Your task to perform on an android device: Do I have any events this weekend? Image 0: 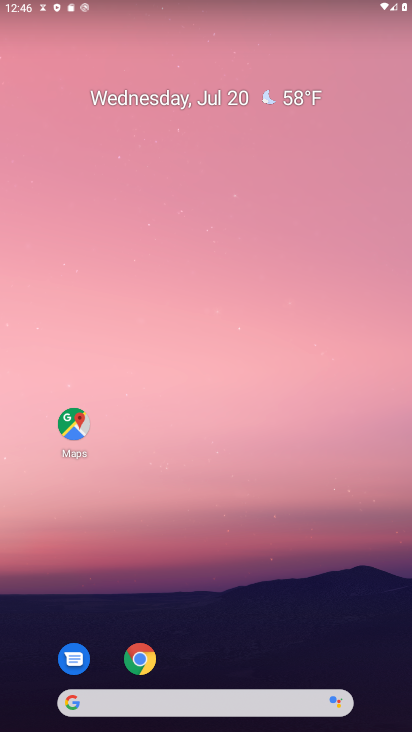
Step 0: press home button
Your task to perform on an android device: Do I have any events this weekend? Image 1: 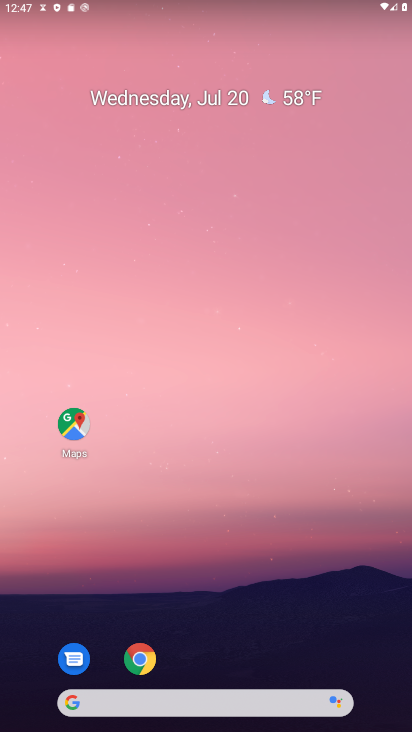
Step 1: drag from (214, 666) to (260, 78)
Your task to perform on an android device: Do I have any events this weekend? Image 2: 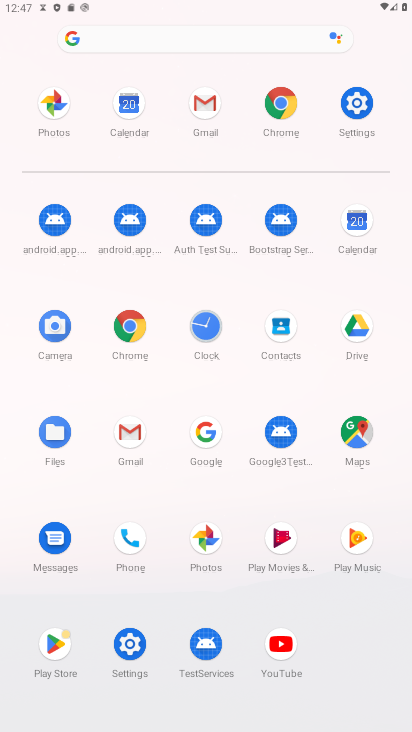
Step 2: click (357, 224)
Your task to perform on an android device: Do I have any events this weekend? Image 3: 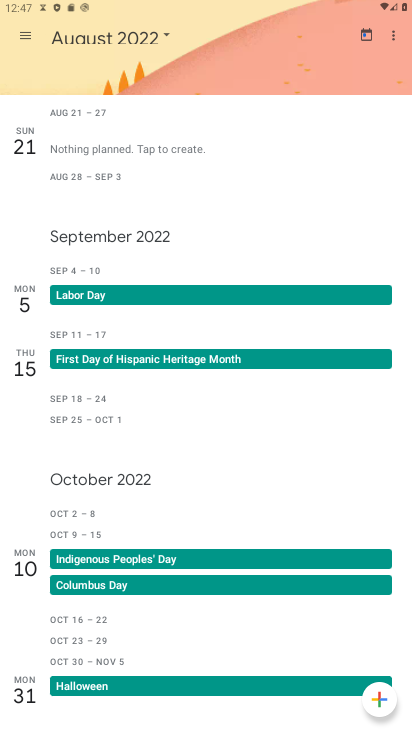
Step 3: click (23, 34)
Your task to perform on an android device: Do I have any events this weekend? Image 4: 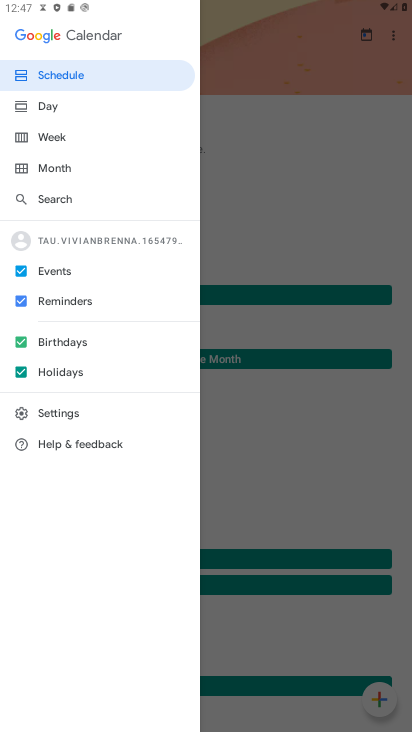
Step 4: click (58, 136)
Your task to perform on an android device: Do I have any events this weekend? Image 5: 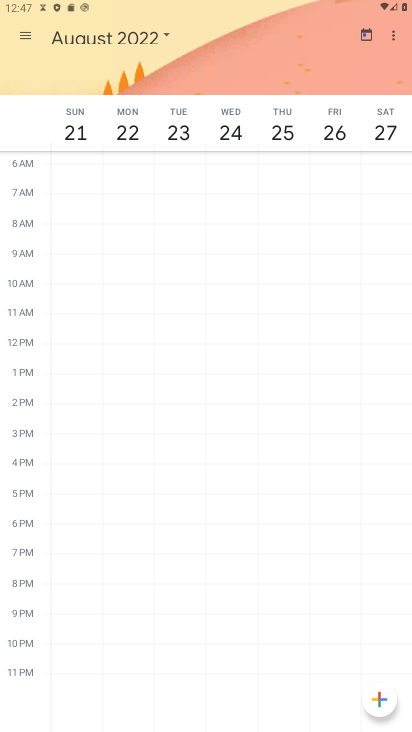
Step 5: drag from (76, 132) to (392, 122)
Your task to perform on an android device: Do I have any events this weekend? Image 6: 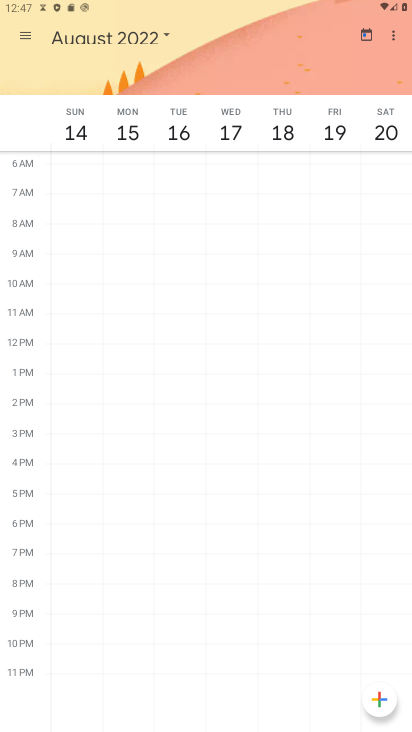
Step 6: click (165, 34)
Your task to perform on an android device: Do I have any events this weekend? Image 7: 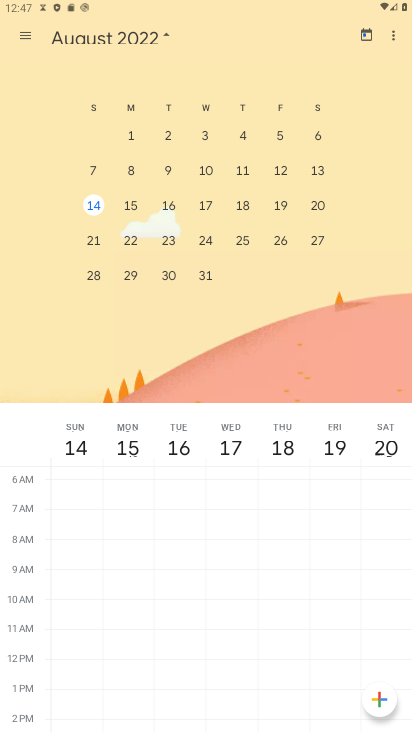
Step 7: drag from (131, 181) to (379, 172)
Your task to perform on an android device: Do I have any events this weekend? Image 8: 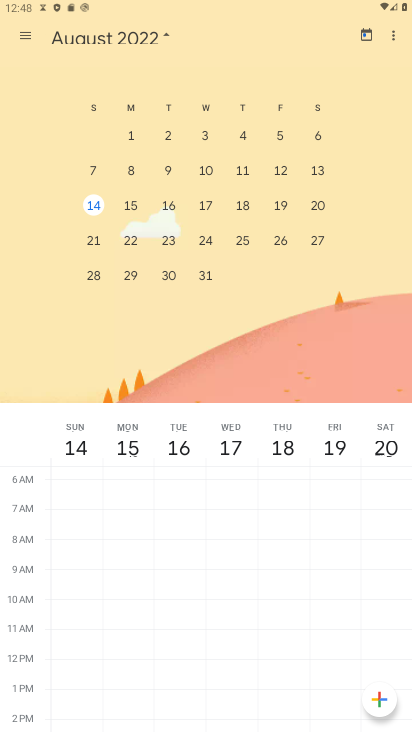
Step 8: drag from (100, 200) to (406, 199)
Your task to perform on an android device: Do I have any events this weekend? Image 9: 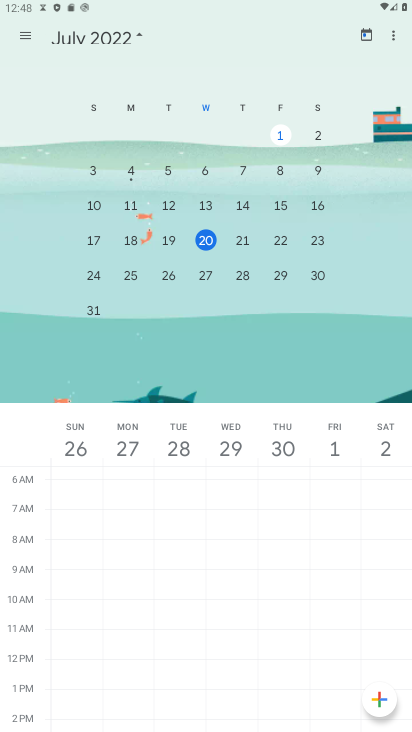
Step 9: click (208, 236)
Your task to perform on an android device: Do I have any events this weekend? Image 10: 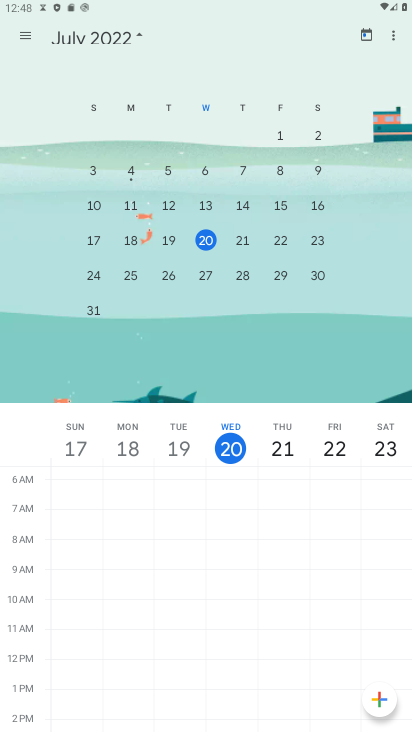
Step 10: click (141, 28)
Your task to perform on an android device: Do I have any events this weekend? Image 11: 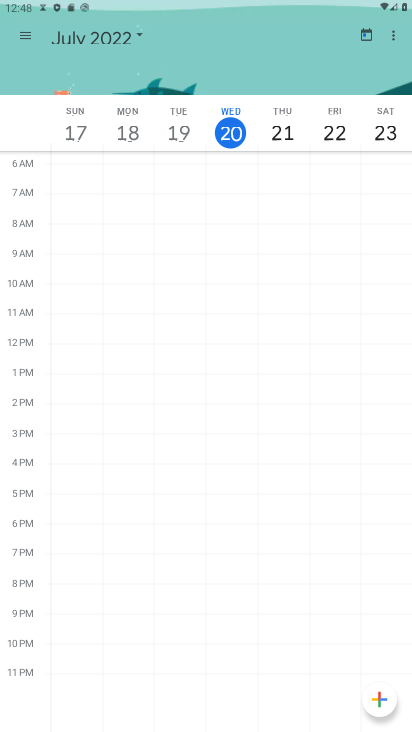
Step 11: task complete